Your task to perform on an android device: turn on translation in the chrome app Image 0: 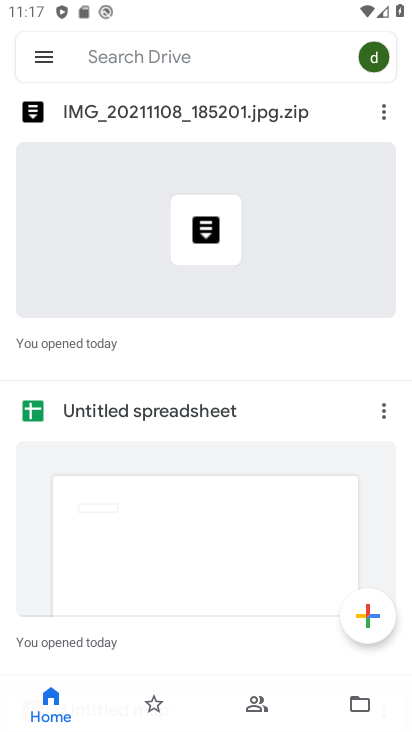
Step 0: press back button
Your task to perform on an android device: turn on translation in the chrome app Image 1: 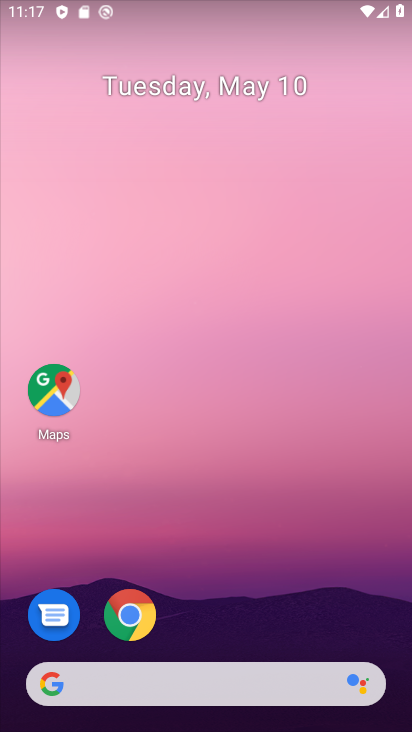
Step 1: drag from (240, 507) to (60, 71)
Your task to perform on an android device: turn on translation in the chrome app Image 2: 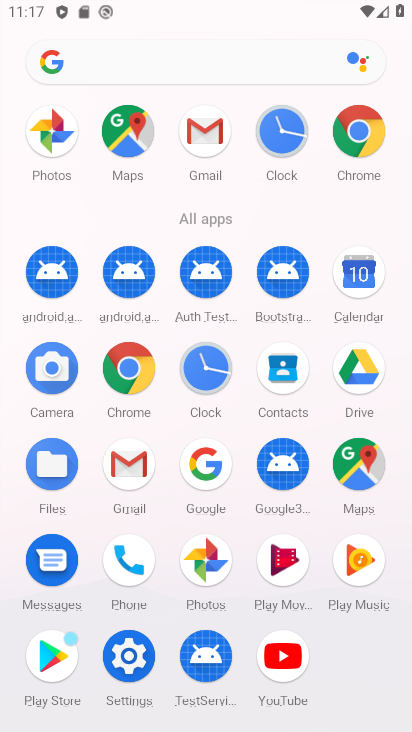
Step 2: drag from (2, 445) to (9, 114)
Your task to perform on an android device: turn on translation in the chrome app Image 3: 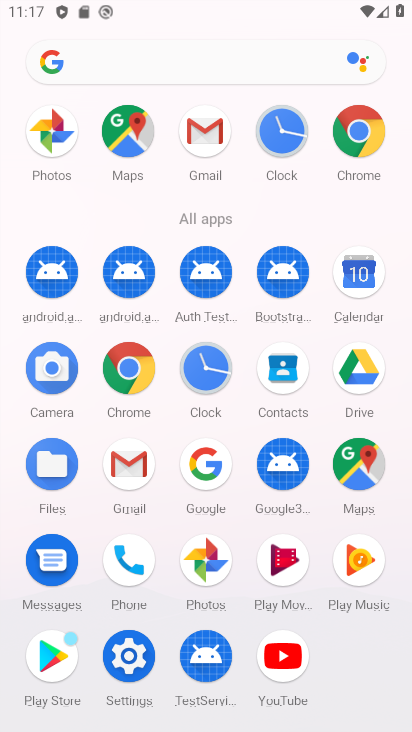
Step 3: click (125, 372)
Your task to perform on an android device: turn on translation in the chrome app Image 4: 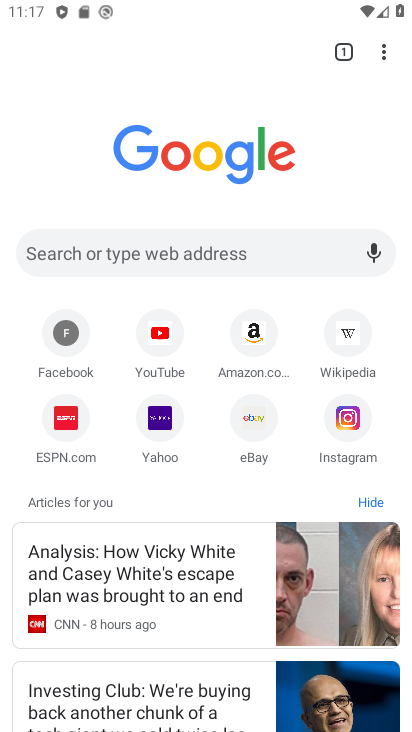
Step 4: drag from (382, 48) to (203, 432)
Your task to perform on an android device: turn on translation in the chrome app Image 5: 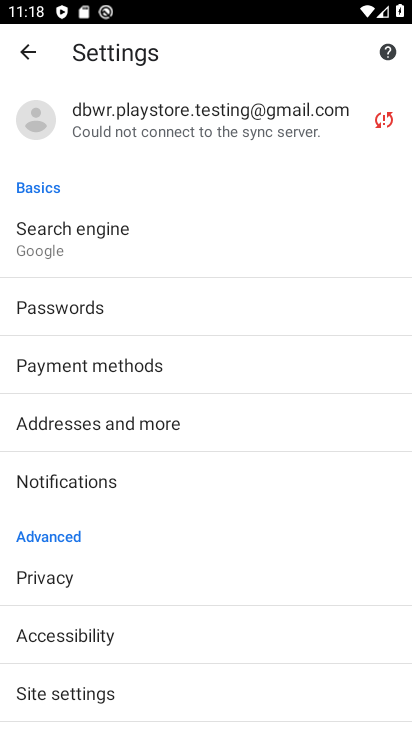
Step 5: drag from (277, 557) to (288, 152)
Your task to perform on an android device: turn on translation in the chrome app Image 6: 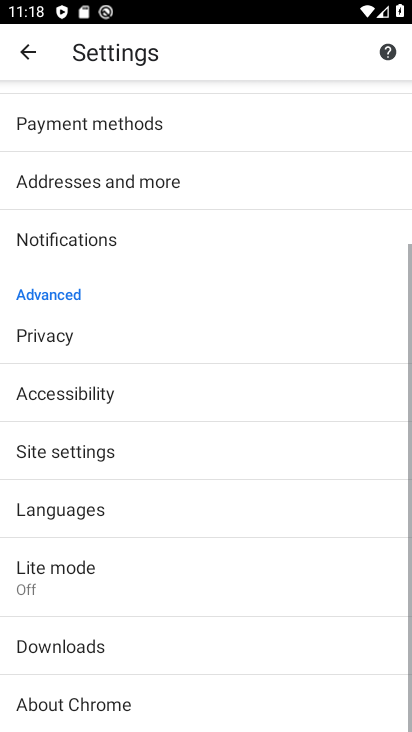
Step 6: drag from (192, 534) to (232, 166)
Your task to perform on an android device: turn on translation in the chrome app Image 7: 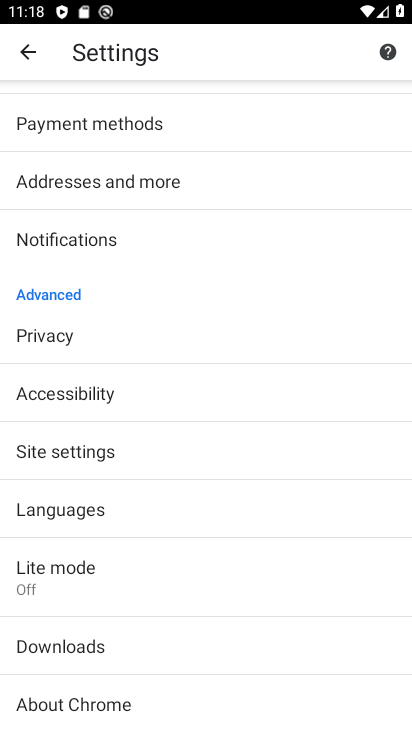
Step 7: click (142, 503)
Your task to perform on an android device: turn on translation in the chrome app Image 8: 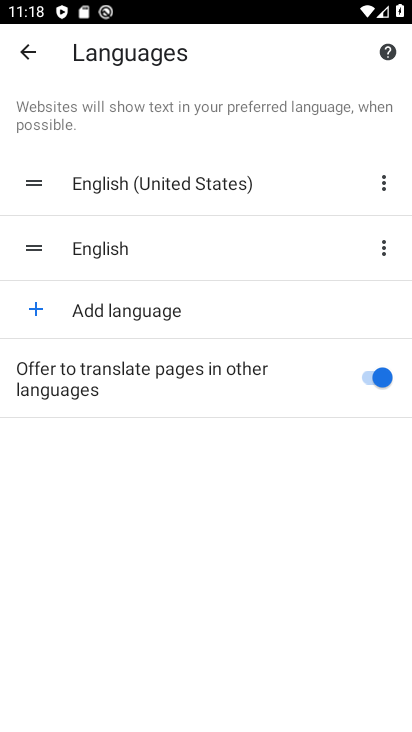
Step 8: task complete